Your task to perform on an android device: turn on location history Image 0: 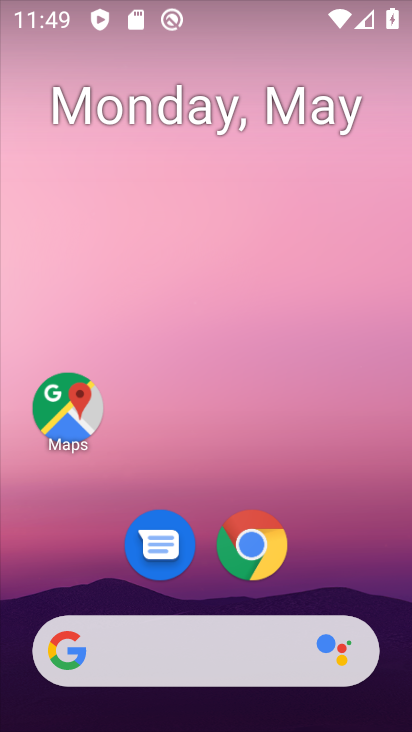
Step 0: drag from (206, 602) to (330, 1)
Your task to perform on an android device: turn on location history Image 1: 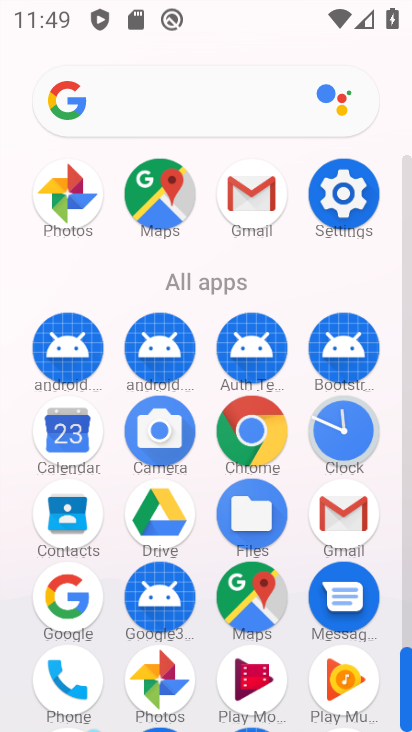
Step 1: click (333, 194)
Your task to perform on an android device: turn on location history Image 2: 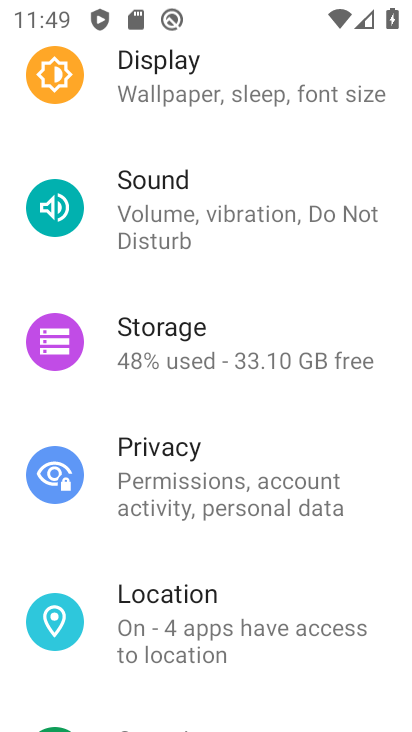
Step 2: click (210, 633)
Your task to perform on an android device: turn on location history Image 3: 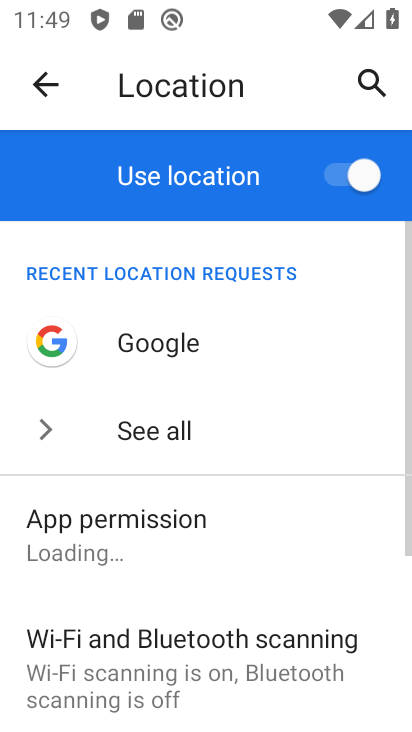
Step 3: drag from (302, 623) to (304, 146)
Your task to perform on an android device: turn on location history Image 4: 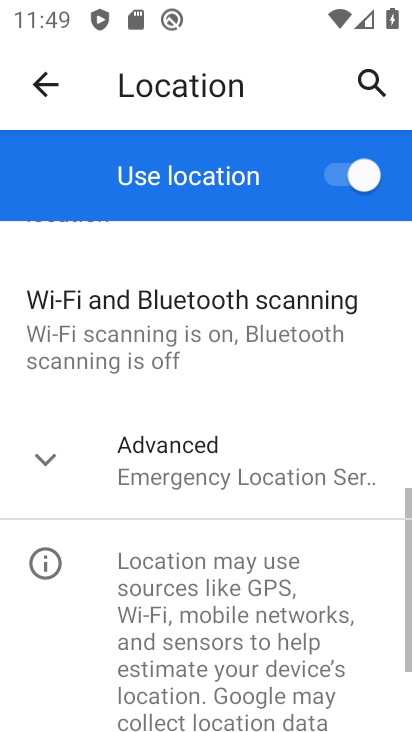
Step 4: click (172, 436)
Your task to perform on an android device: turn on location history Image 5: 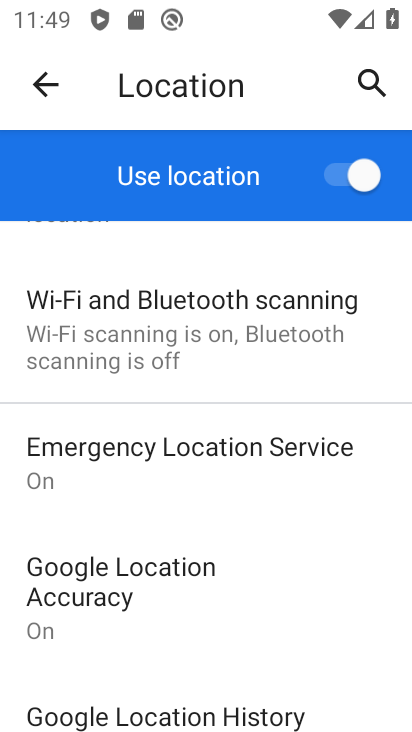
Step 5: drag from (200, 686) to (219, 202)
Your task to perform on an android device: turn on location history Image 6: 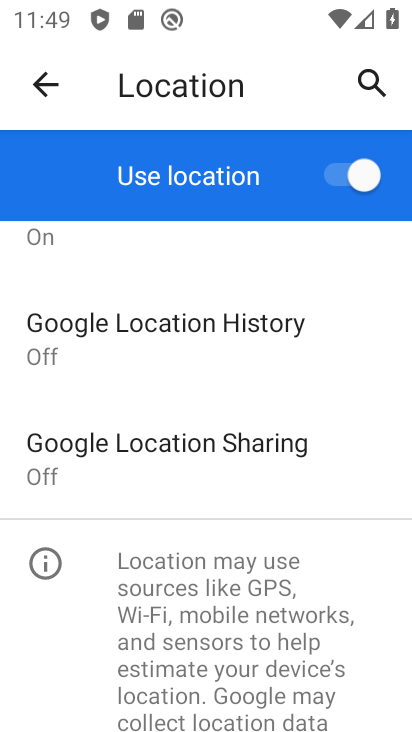
Step 6: click (273, 345)
Your task to perform on an android device: turn on location history Image 7: 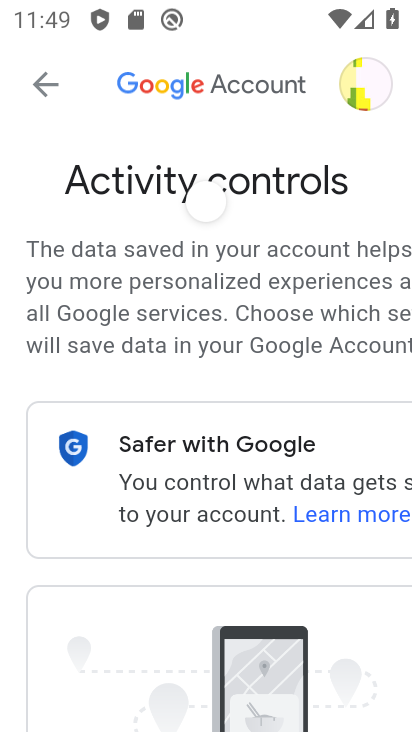
Step 7: drag from (160, 632) to (181, 147)
Your task to perform on an android device: turn on location history Image 8: 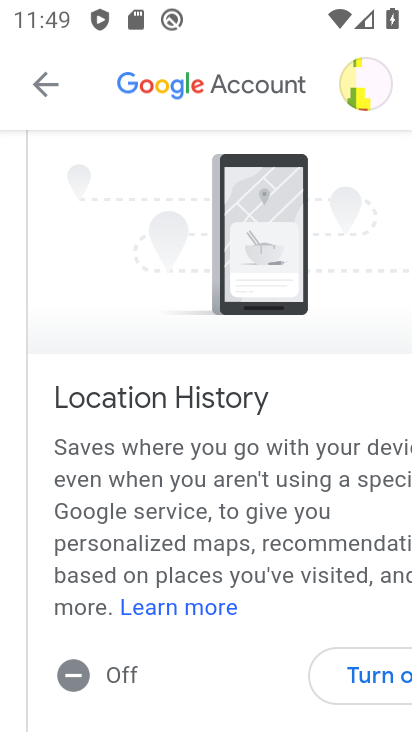
Step 8: click (345, 663)
Your task to perform on an android device: turn on location history Image 9: 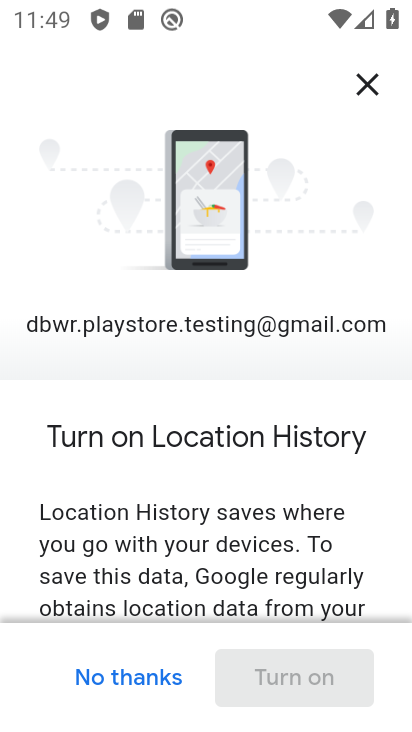
Step 9: drag from (234, 595) to (228, 90)
Your task to perform on an android device: turn on location history Image 10: 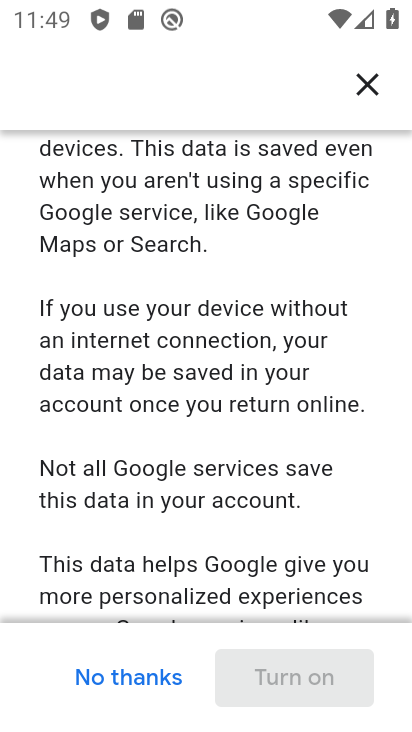
Step 10: drag from (129, 623) to (160, 214)
Your task to perform on an android device: turn on location history Image 11: 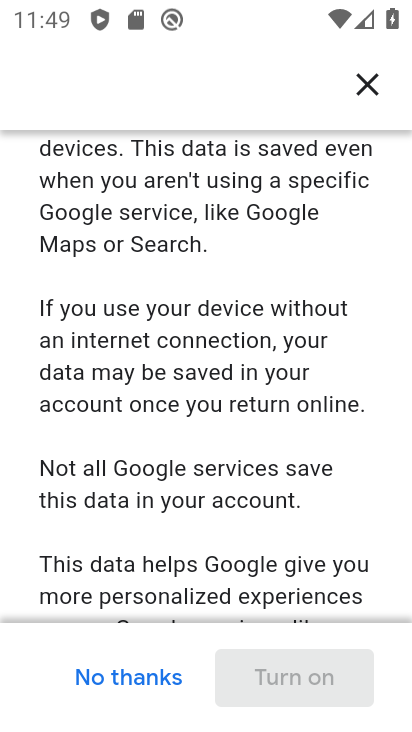
Step 11: drag from (150, 578) to (210, 128)
Your task to perform on an android device: turn on location history Image 12: 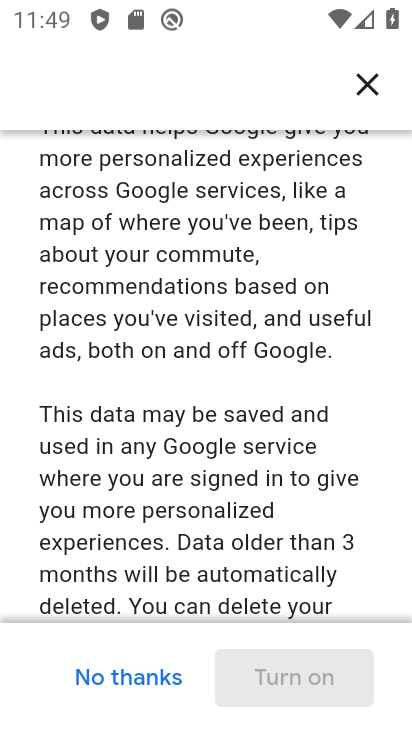
Step 12: drag from (166, 591) to (191, 133)
Your task to perform on an android device: turn on location history Image 13: 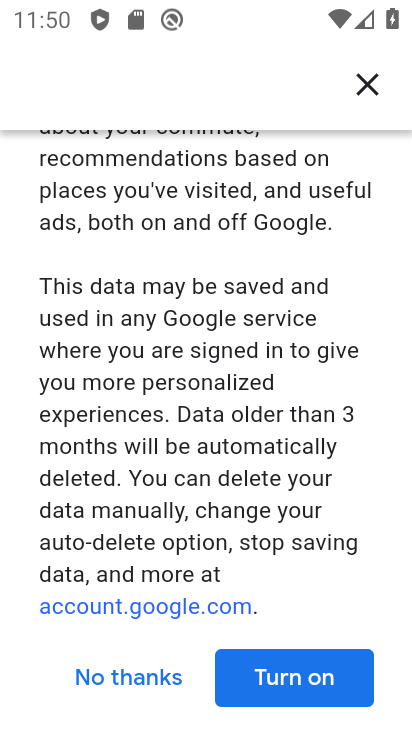
Step 13: click (333, 663)
Your task to perform on an android device: turn on location history Image 14: 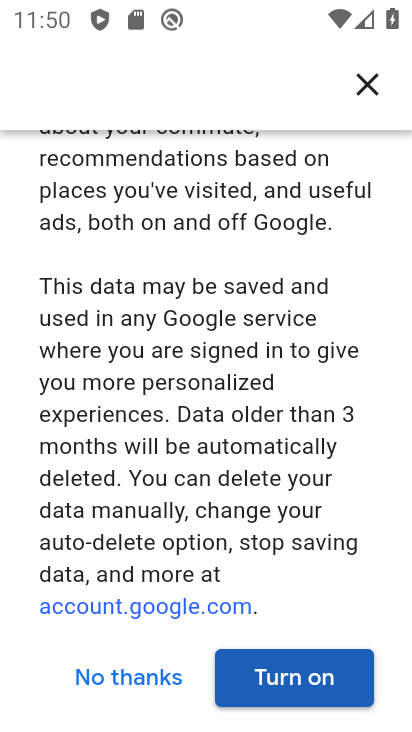
Step 14: click (305, 680)
Your task to perform on an android device: turn on location history Image 15: 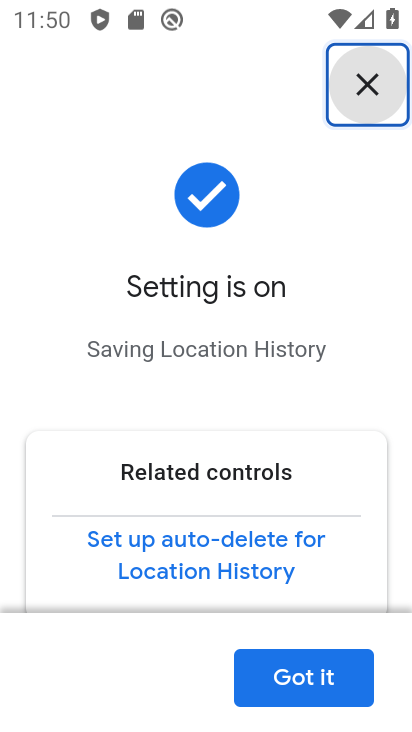
Step 15: click (305, 680)
Your task to perform on an android device: turn on location history Image 16: 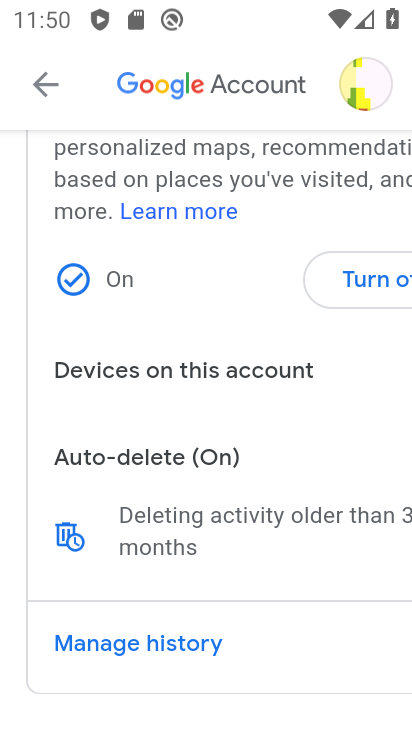
Step 16: task complete